Your task to perform on an android device: View the shopping cart on bestbuy. Add "logitech g pro" to the cart on bestbuy Image 0: 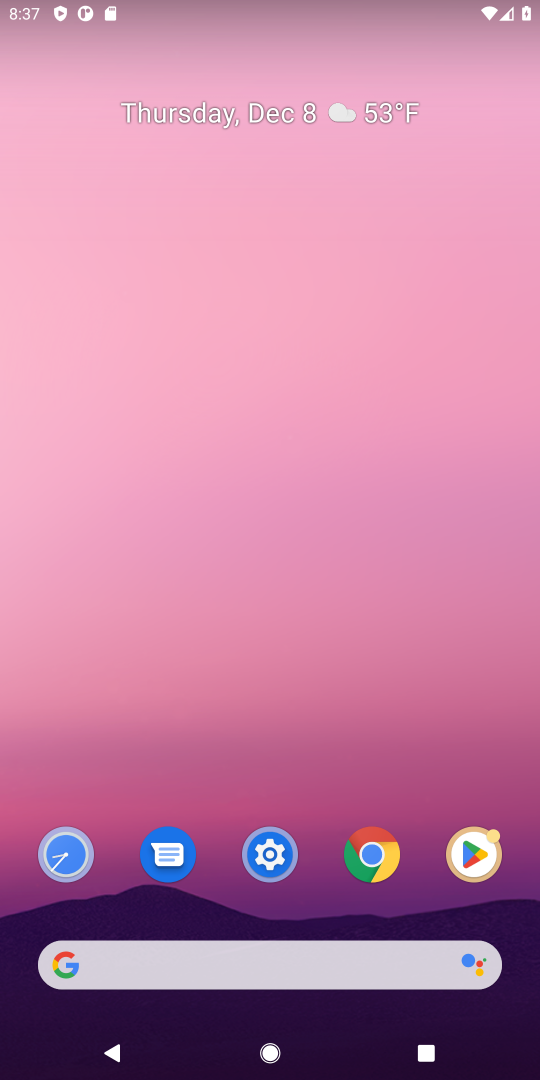
Step 0: press home button
Your task to perform on an android device: View the shopping cart on bestbuy. Add "logitech g pro" to the cart on bestbuy Image 1: 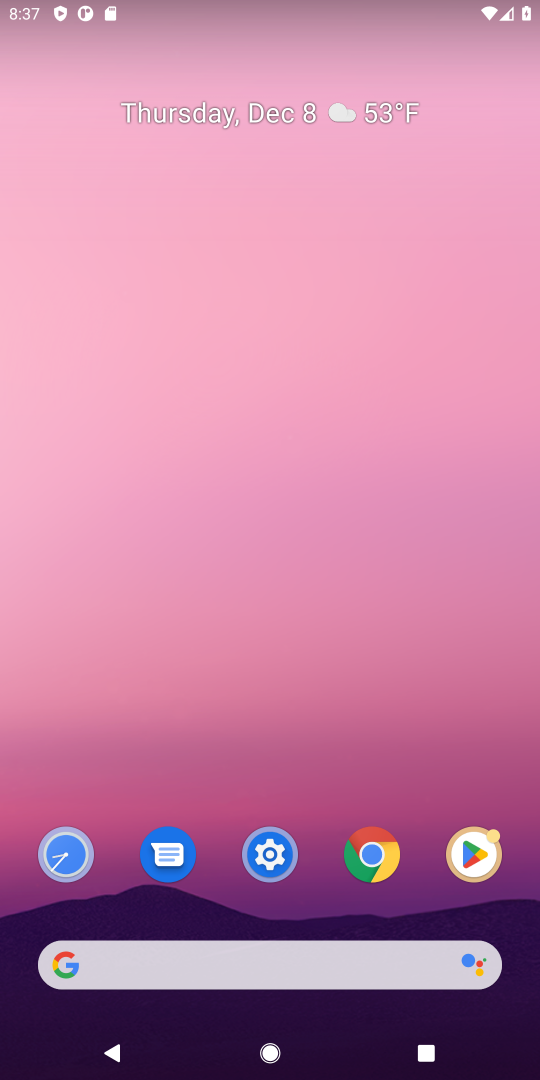
Step 1: click (125, 968)
Your task to perform on an android device: View the shopping cart on bestbuy. Add "logitech g pro" to the cart on bestbuy Image 2: 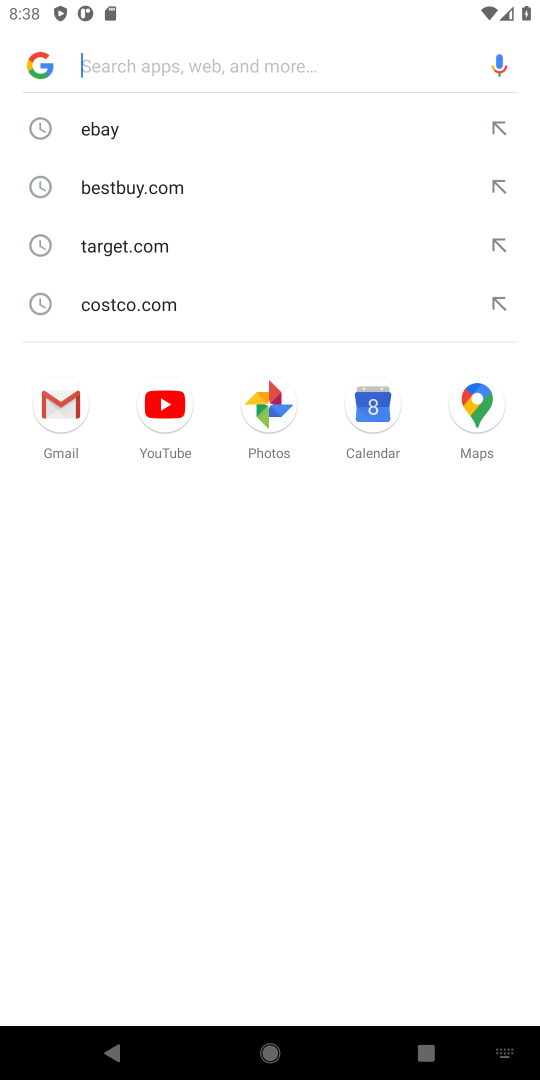
Step 2: press enter
Your task to perform on an android device: View the shopping cart on bestbuy. Add "logitech g pro" to the cart on bestbuy Image 3: 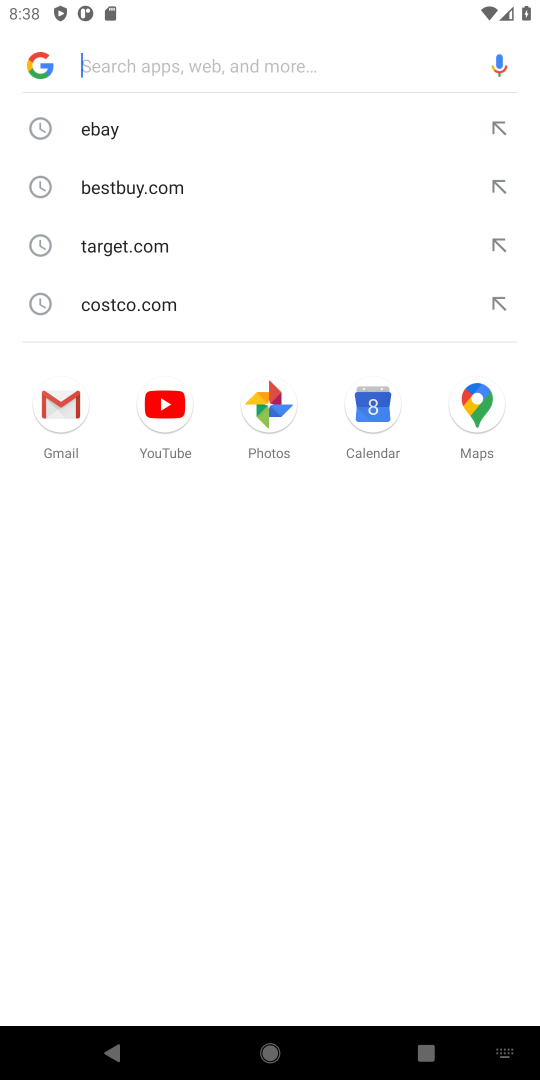
Step 3: type "bestbuy"
Your task to perform on an android device: View the shopping cart on bestbuy. Add "logitech g pro" to the cart on bestbuy Image 4: 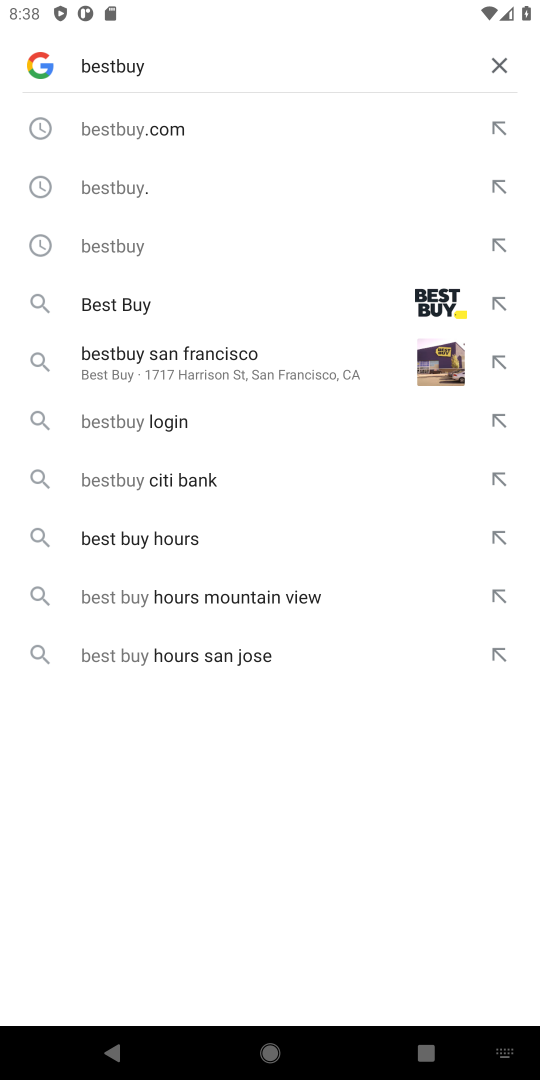
Step 4: press enter
Your task to perform on an android device: View the shopping cart on bestbuy. Add "logitech g pro" to the cart on bestbuy Image 5: 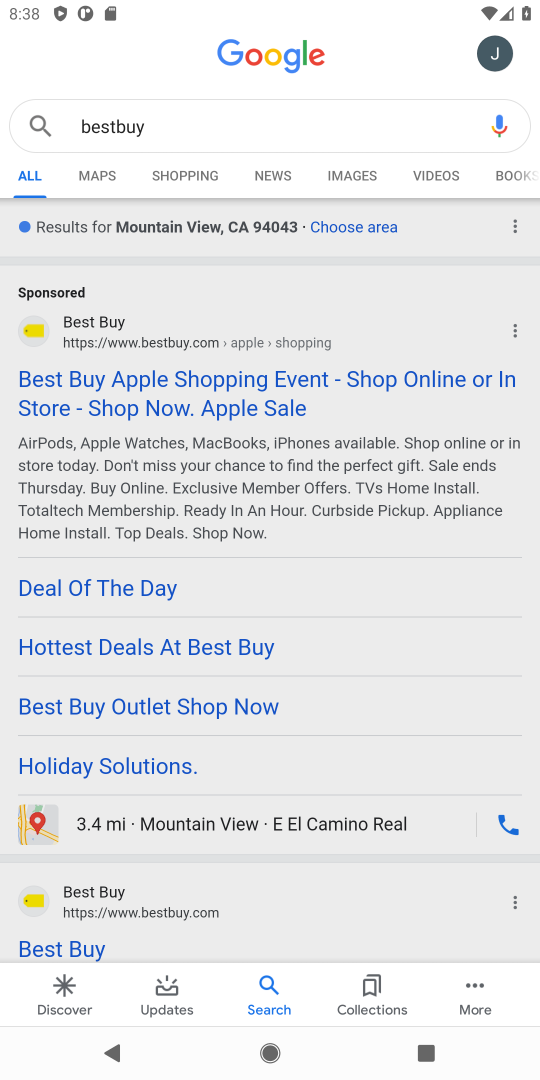
Step 5: click (134, 384)
Your task to perform on an android device: View the shopping cart on bestbuy. Add "logitech g pro" to the cart on bestbuy Image 6: 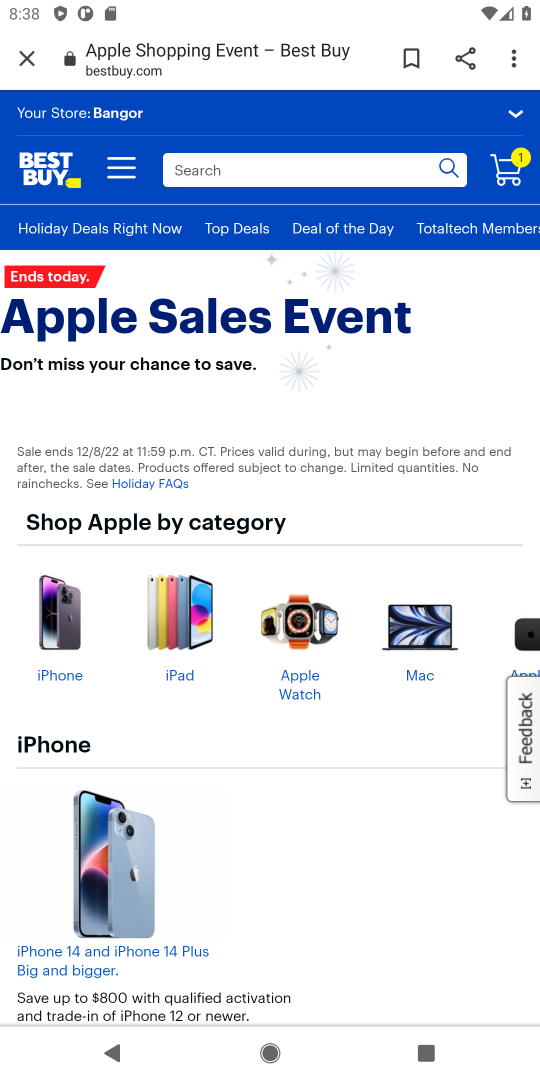
Step 6: click (510, 165)
Your task to perform on an android device: View the shopping cart on bestbuy. Add "logitech g pro" to the cart on bestbuy Image 7: 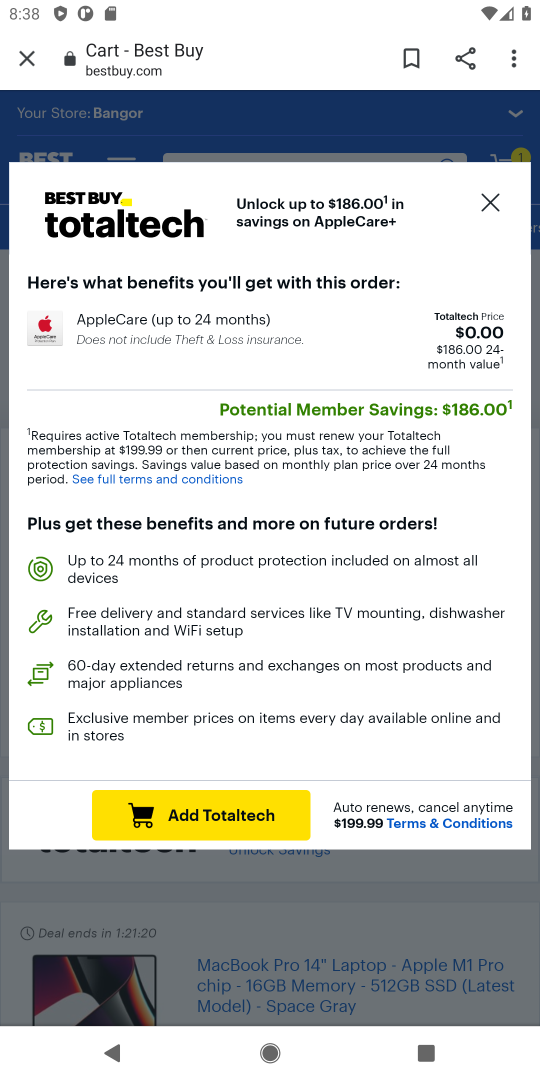
Step 7: click (491, 199)
Your task to perform on an android device: View the shopping cart on bestbuy. Add "logitech g pro" to the cart on bestbuy Image 8: 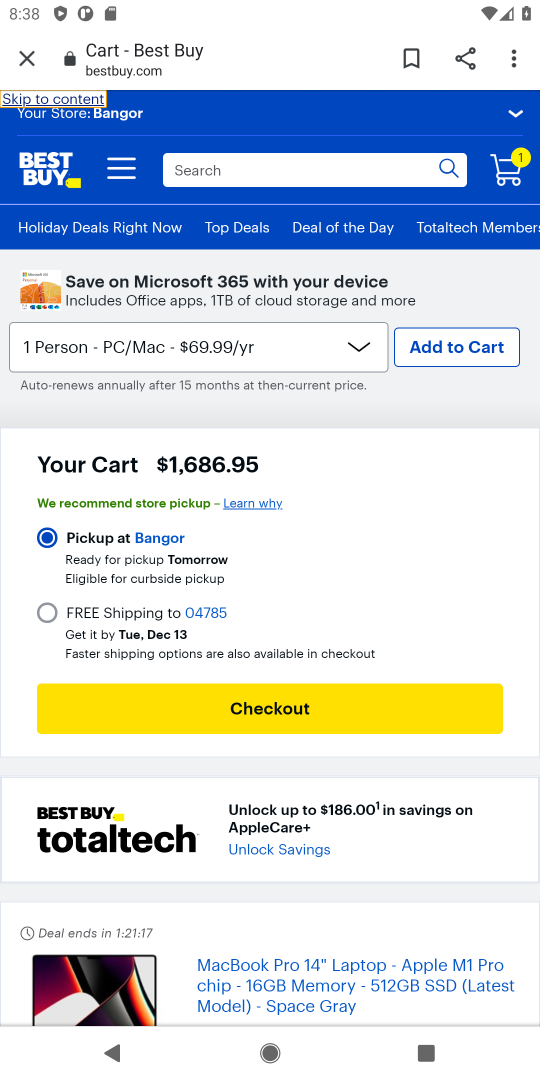
Step 8: click (196, 162)
Your task to perform on an android device: View the shopping cart on bestbuy. Add "logitech g pro" to the cart on bestbuy Image 9: 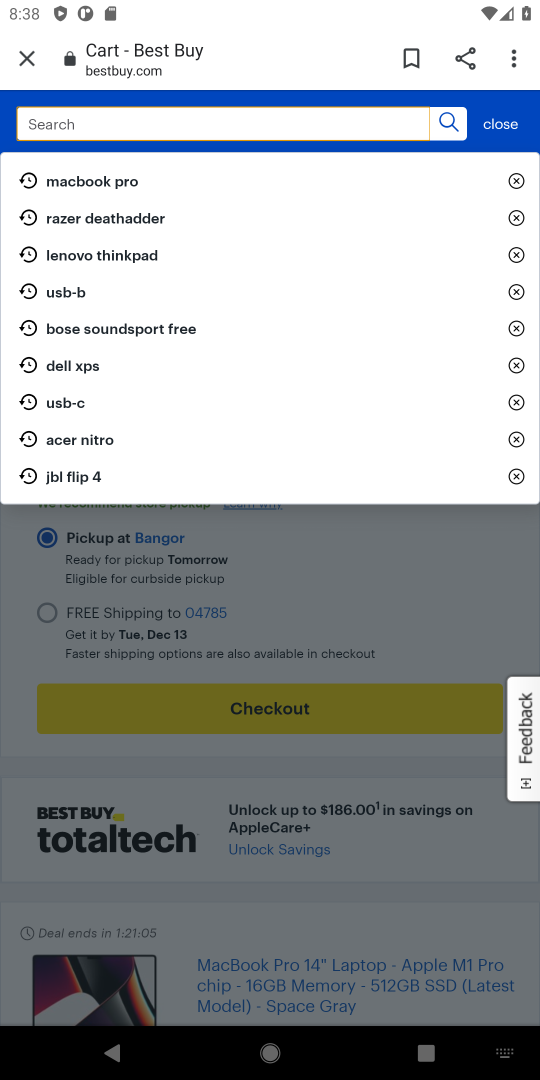
Step 9: press enter
Your task to perform on an android device: View the shopping cart on bestbuy. Add "logitech g pro" to the cart on bestbuy Image 10: 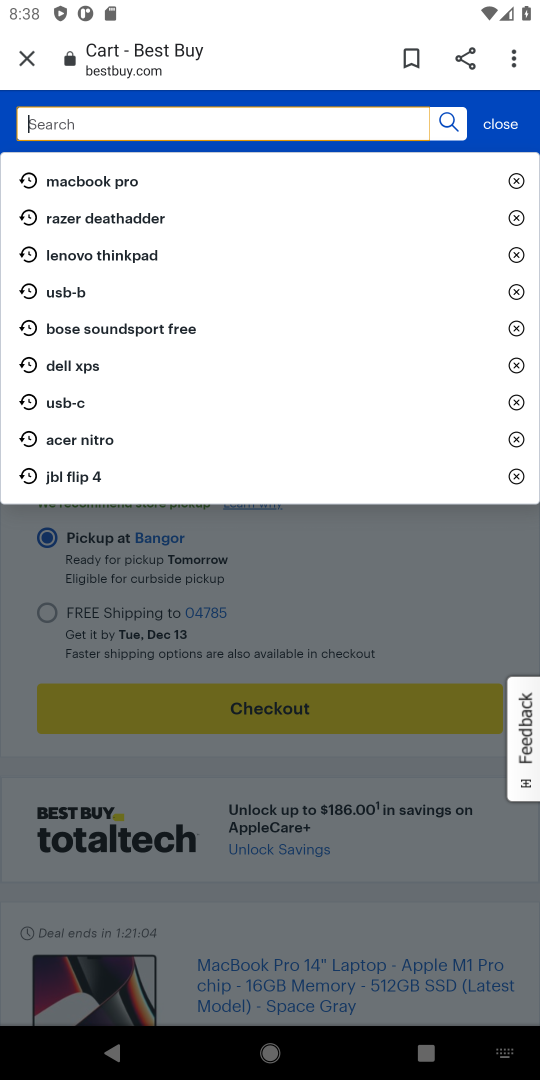
Step 10: type "logitech g pro"
Your task to perform on an android device: View the shopping cart on bestbuy. Add "logitech g pro" to the cart on bestbuy Image 11: 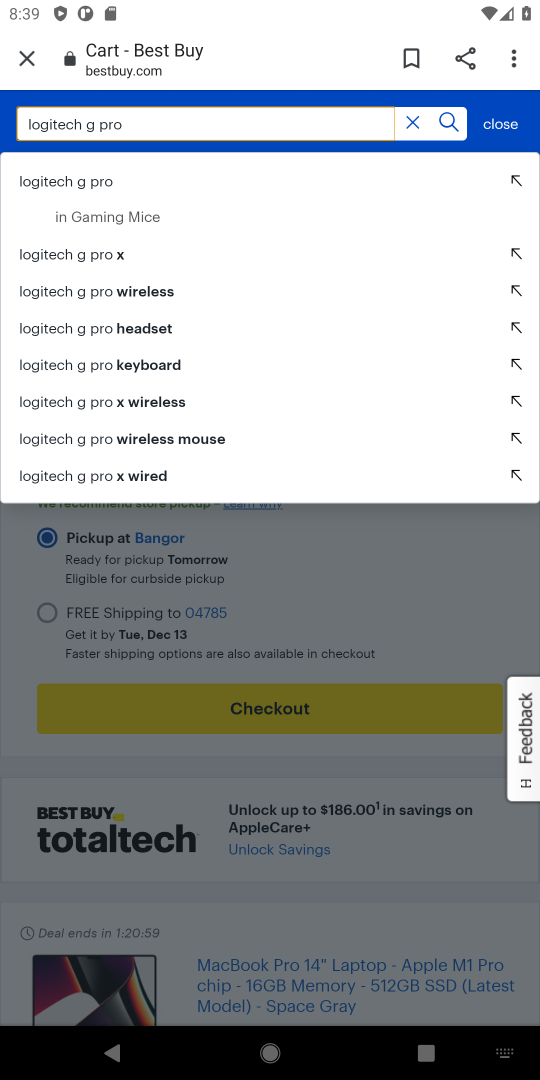
Step 11: press enter
Your task to perform on an android device: View the shopping cart on bestbuy. Add "logitech g pro" to the cart on bestbuy Image 12: 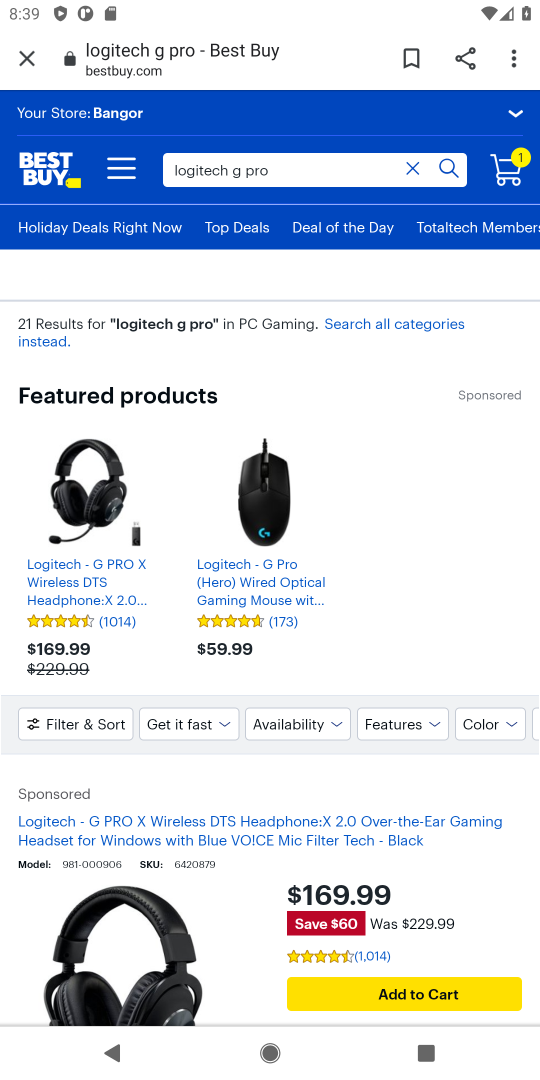
Step 12: drag from (215, 933) to (222, 529)
Your task to perform on an android device: View the shopping cart on bestbuy. Add "logitech g pro" to the cart on bestbuy Image 13: 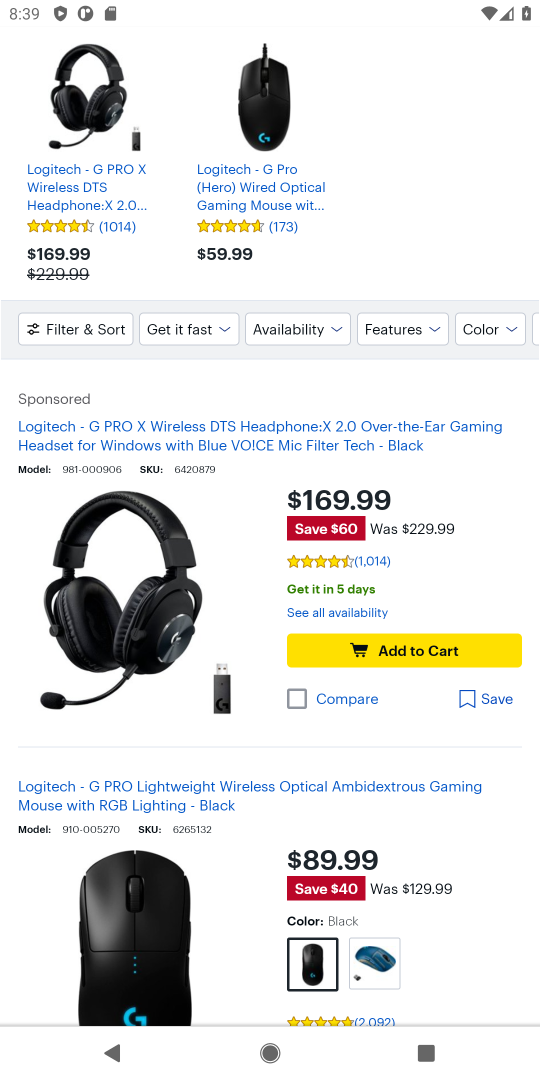
Step 13: click (405, 648)
Your task to perform on an android device: View the shopping cart on bestbuy. Add "logitech g pro" to the cart on bestbuy Image 14: 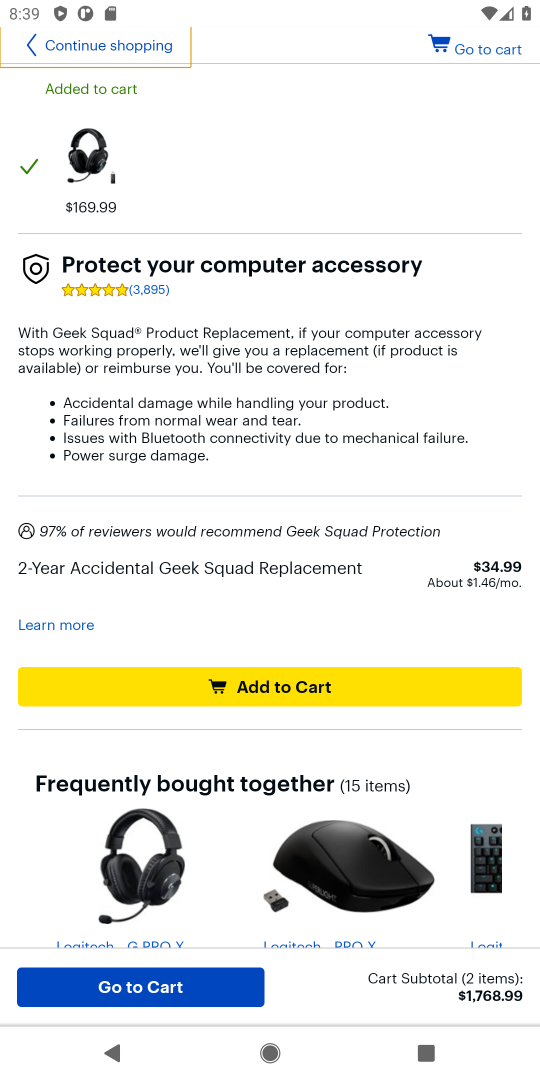
Step 14: task complete